Your task to perform on an android device: see tabs open on other devices in the chrome app Image 0: 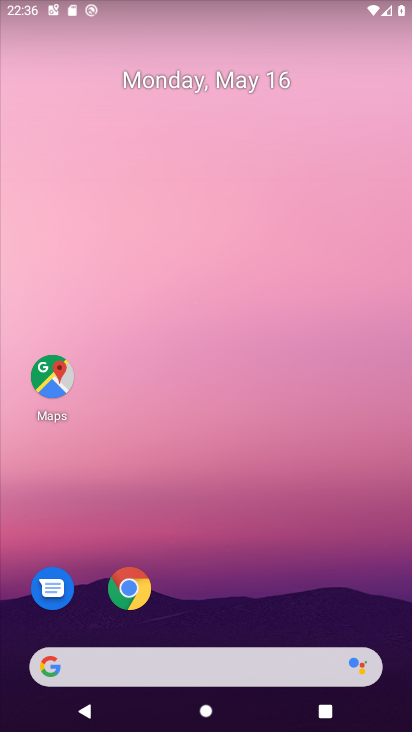
Step 0: click (129, 586)
Your task to perform on an android device: see tabs open on other devices in the chrome app Image 1: 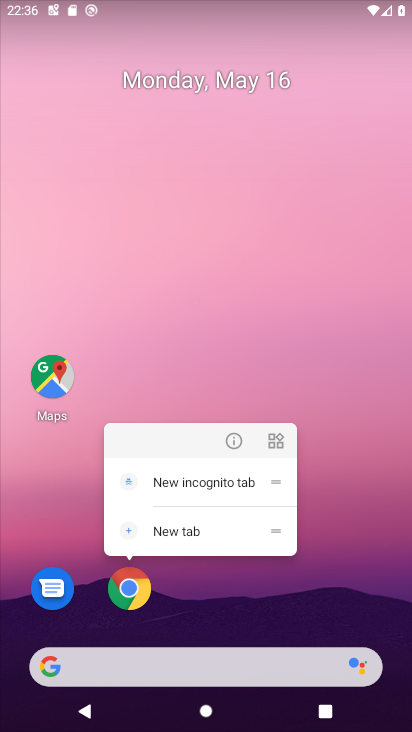
Step 1: click (129, 586)
Your task to perform on an android device: see tabs open on other devices in the chrome app Image 2: 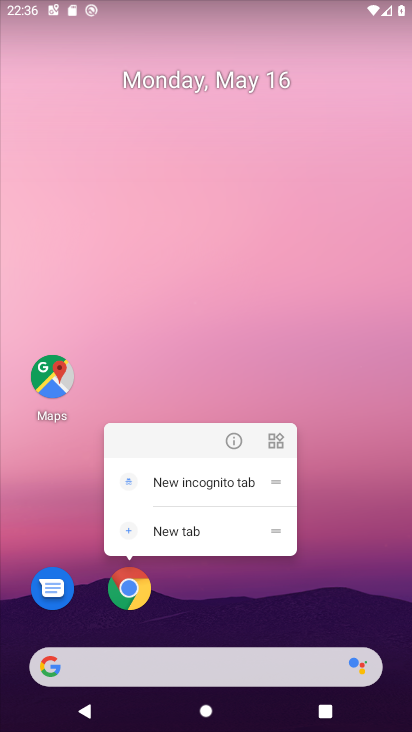
Step 2: click (127, 581)
Your task to perform on an android device: see tabs open on other devices in the chrome app Image 3: 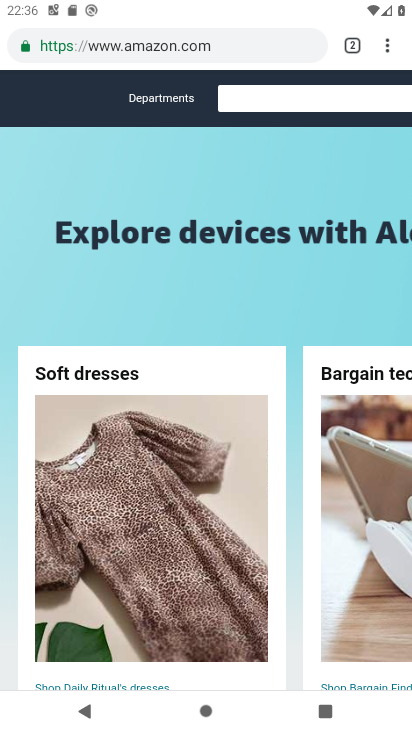
Step 3: click (381, 46)
Your task to perform on an android device: see tabs open on other devices in the chrome app Image 4: 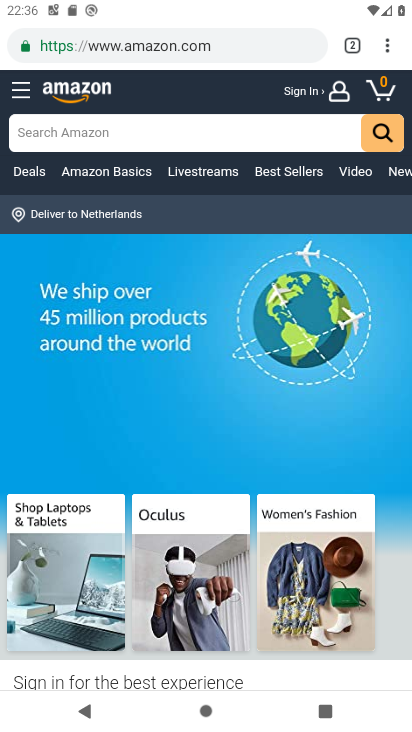
Step 4: click (384, 49)
Your task to perform on an android device: see tabs open on other devices in the chrome app Image 5: 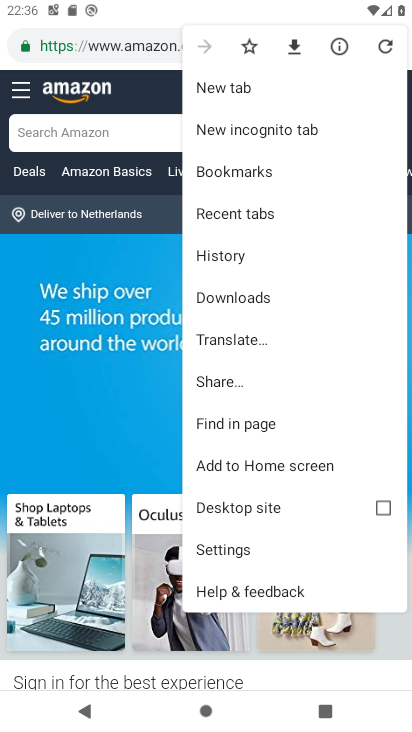
Step 5: click (281, 209)
Your task to perform on an android device: see tabs open on other devices in the chrome app Image 6: 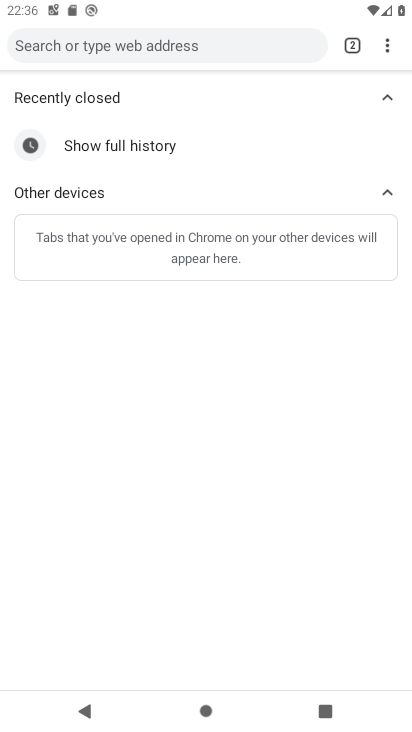
Step 6: task complete